Your task to perform on an android device: delete a single message in the gmail app Image 0: 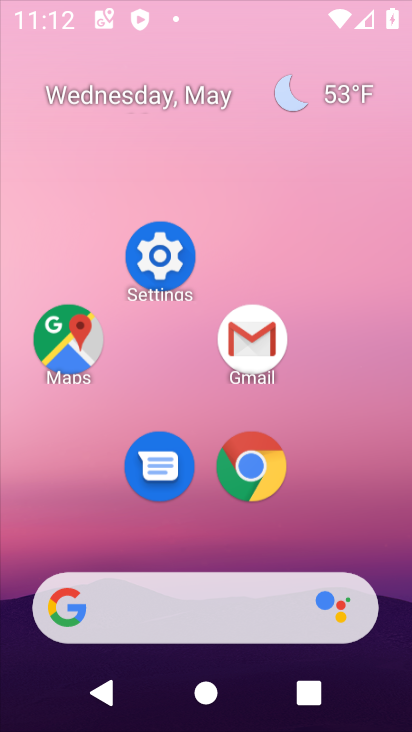
Step 0: drag from (244, 306) to (249, 187)
Your task to perform on an android device: delete a single message in the gmail app Image 1: 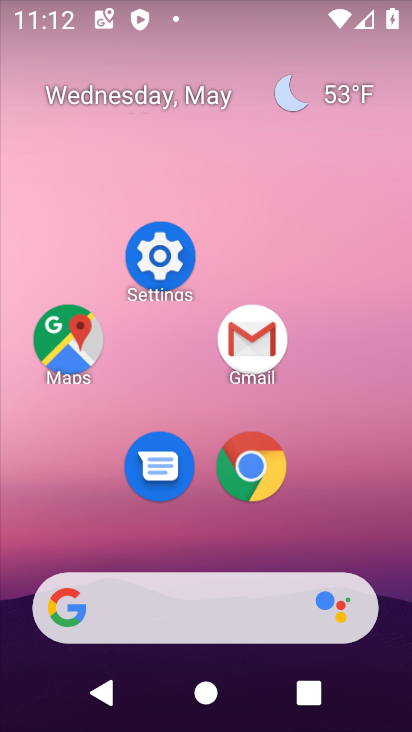
Step 1: click (253, 355)
Your task to perform on an android device: delete a single message in the gmail app Image 2: 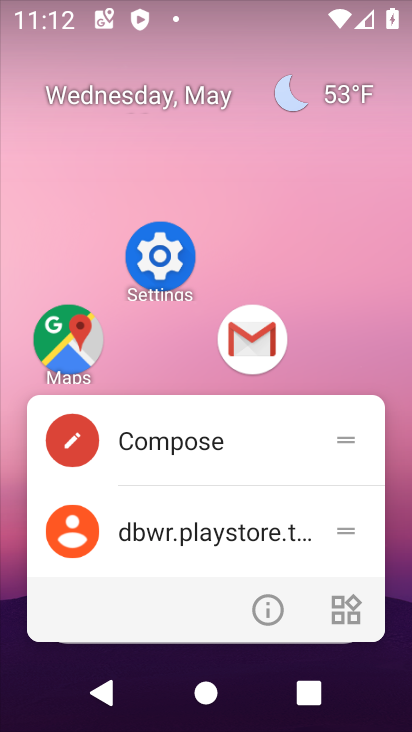
Step 2: click (213, 542)
Your task to perform on an android device: delete a single message in the gmail app Image 3: 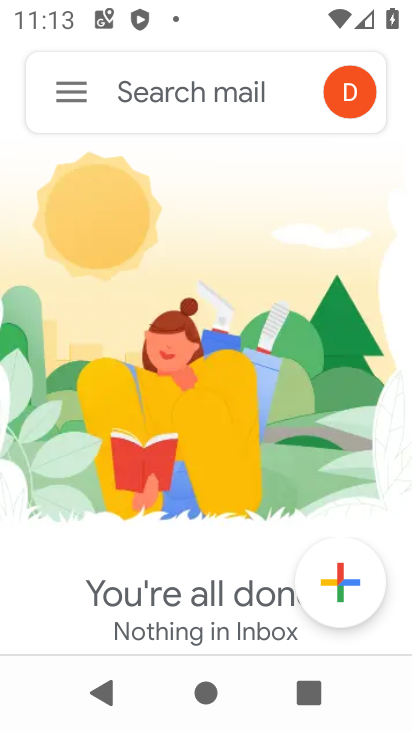
Step 3: click (79, 102)
Your task to perform on an android device: delete a single message in the gmail app Image 4: 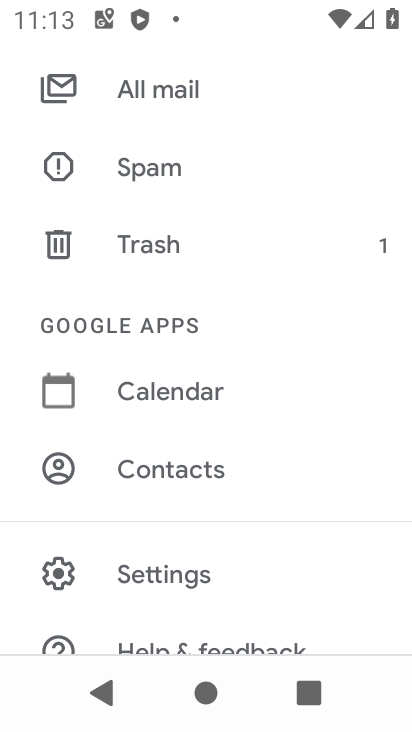
Step 4: drag from (222, 505) to (306, 90)
Your task to perform on an android device: delete a single message in the gmail app Image 5: 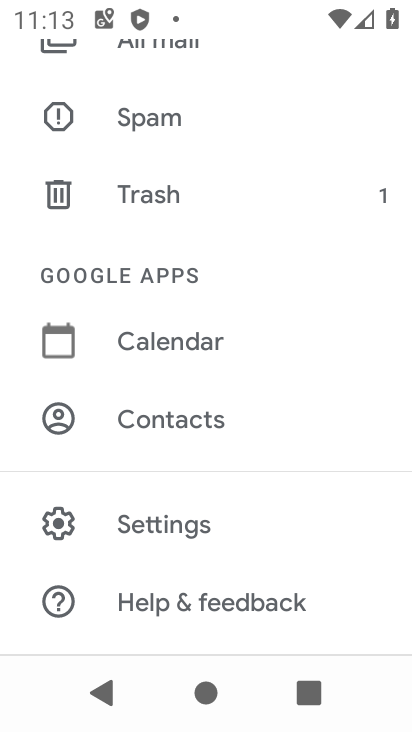
Step 5: click (184, 524)
Your task to perform on an android device: delete a single message in the gmail app Image 6: 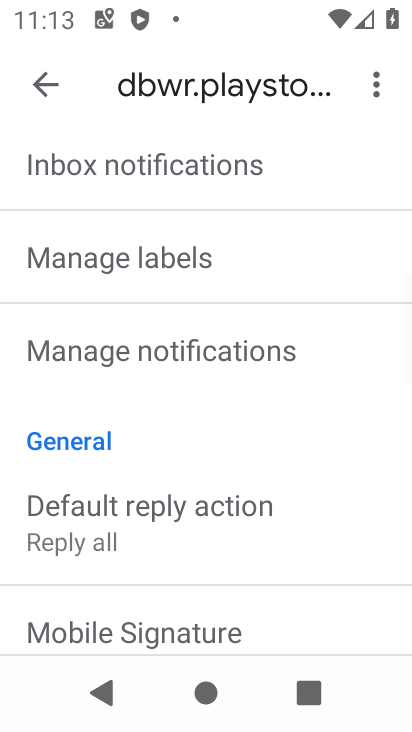
Step 6: click (58, 78)
Your task to perform on an android device: delete a single message in the gmail app Image 7: 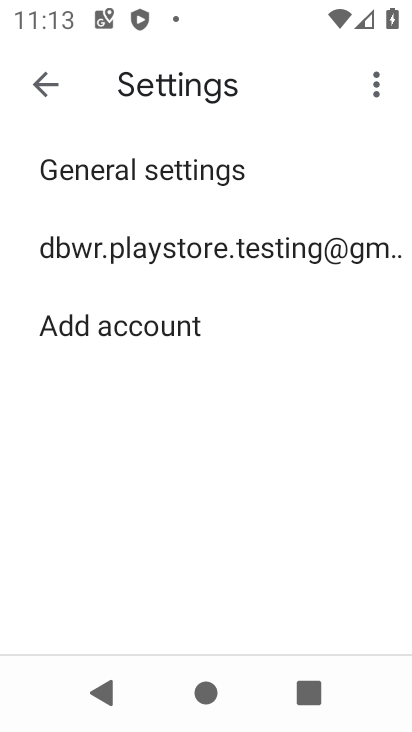
Step 7: click (57, 81)
Your task to perform on an android device: delete a single message in the gmail app Image 8: 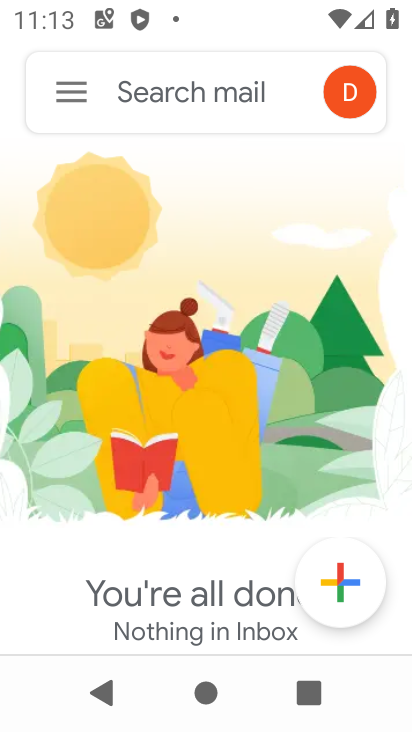
Step 8: task complete